Your task to perform on an android device: Is it going to rain this weekend? Image 0: 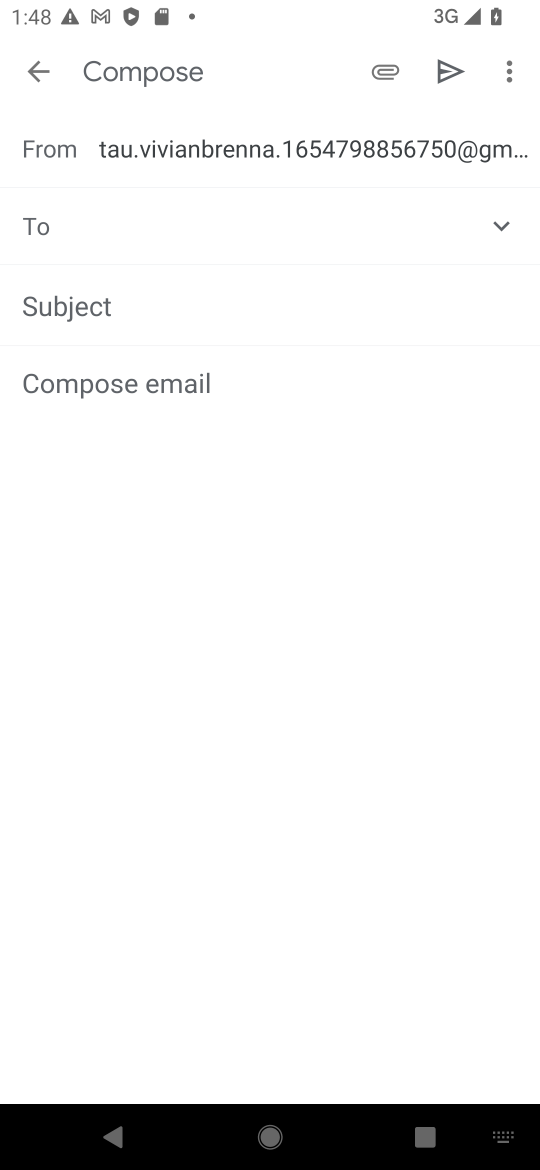
Step 0: press home button
Your task to perform on an android device: Is it going to rain this weekend? Image 1: 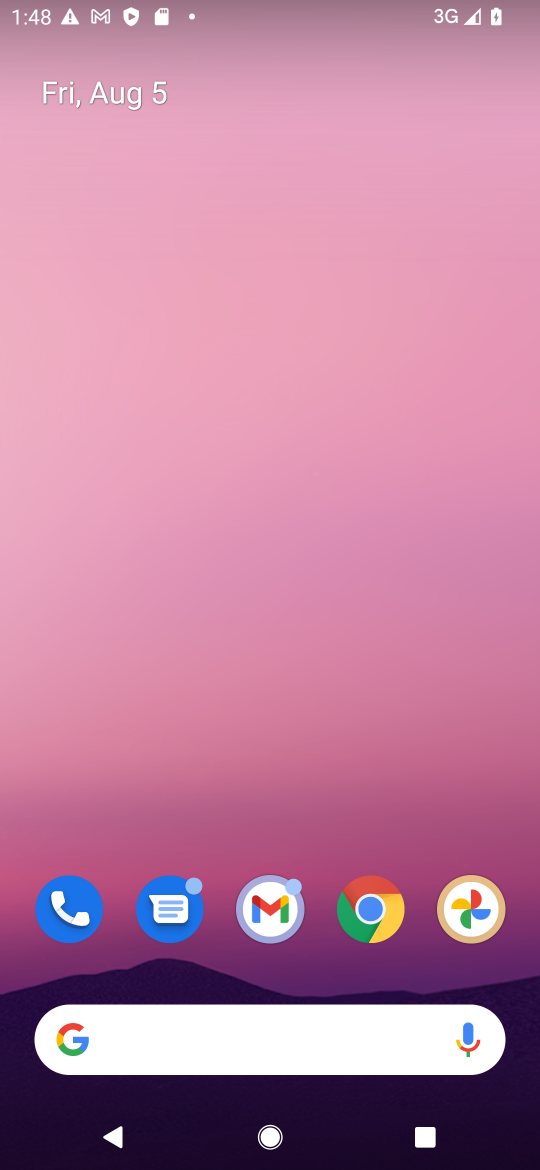
Step 1: drag from (320, 798) to (321, 204)
Your task to perform on an android device: Is it going to rain this weekend? Image 2: 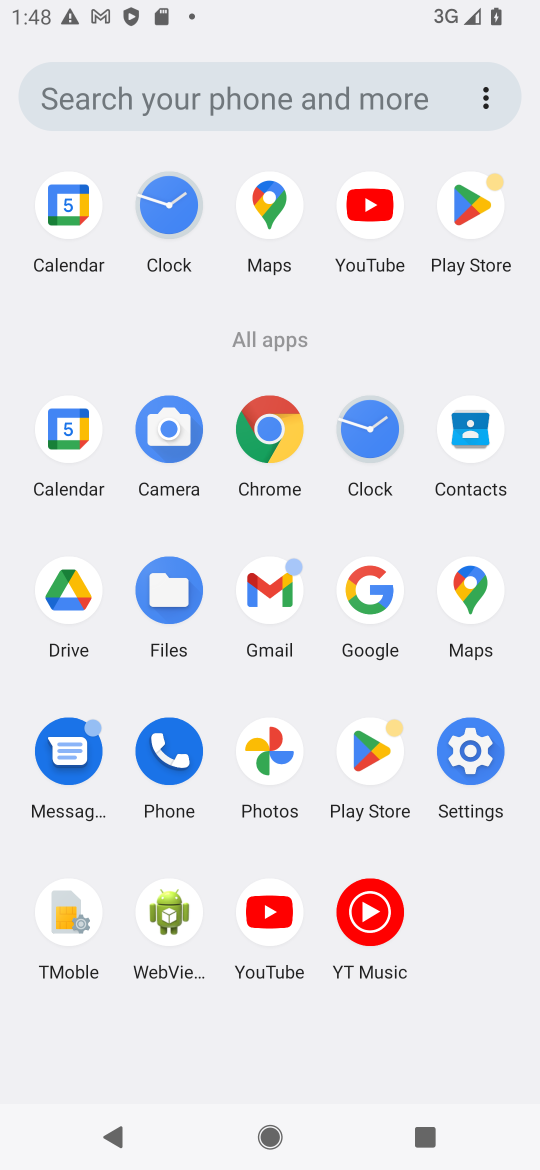
Step 2: click (380, 590)
Your task to perform on an android device: Is it going to rain this weekend? Image 3: 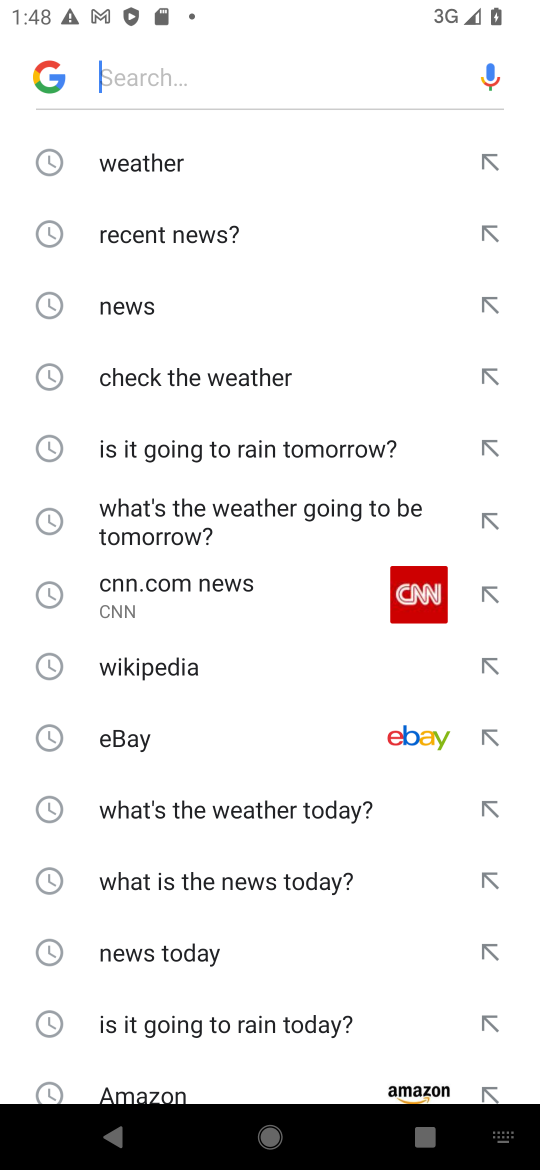
Step 3: click (153, 165)
Your task to perform on an android device: Is it going to rain this weekend? Image 4: 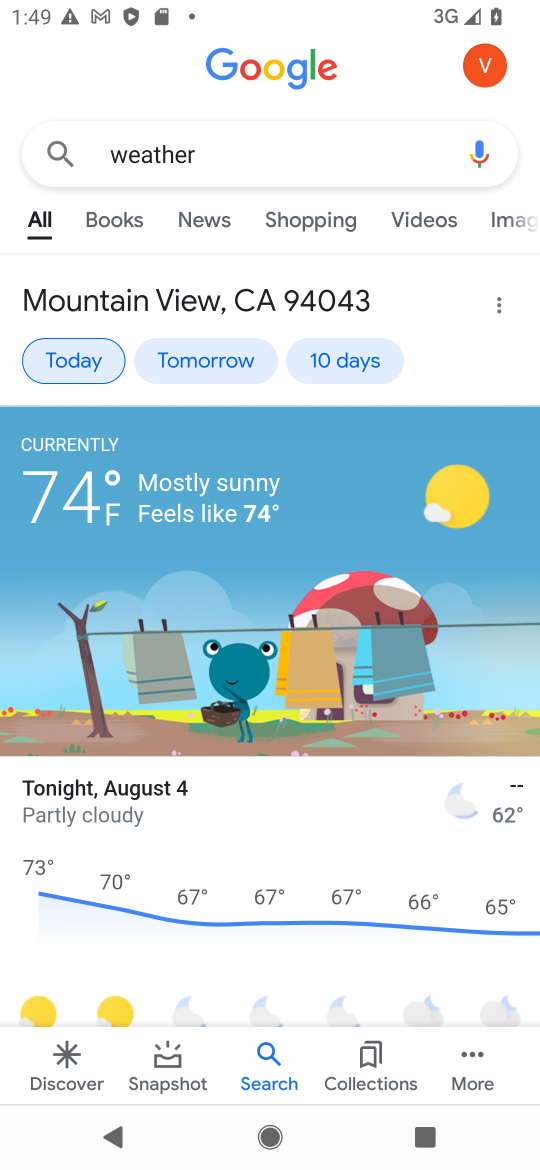
Step 4: click (327, 356)
Your task to perform on an android device: Is it going to rain this weekend? Image 5: 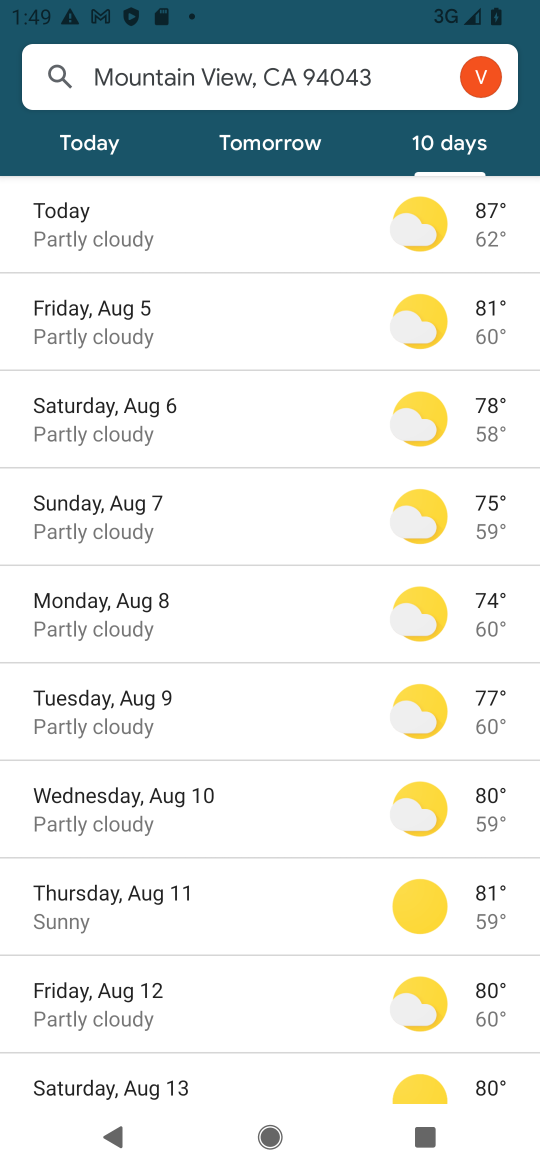
Step 5: task complete